Your task to perform on an android device: Go to network settings Image 0: 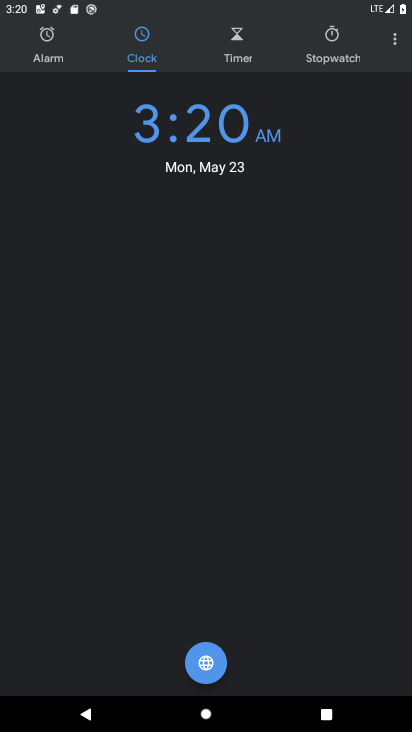
Step 0: press home button
Your task to perform on an android device: Go to network settings Image 1: 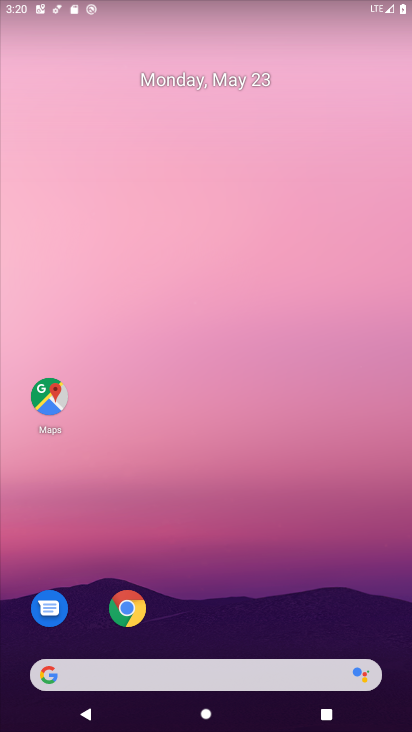
Step 1: drag from (233, 619) to (231, 182)
Your task to perform on an android device: Go to network settings Image 2: 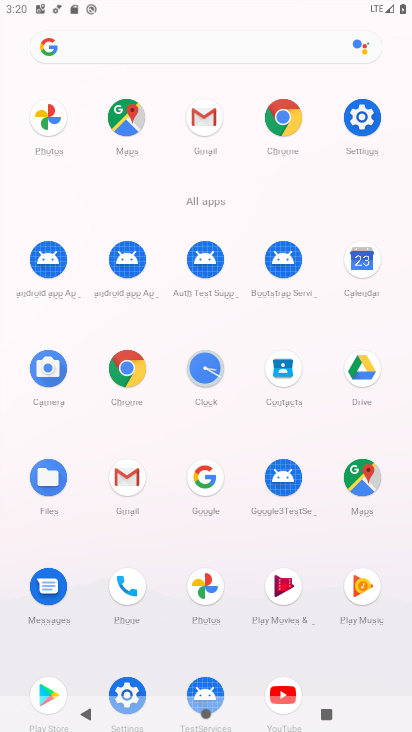
Step 2: click (372, 127)
Your task to perform on an android device: Go to network settings Image 3: 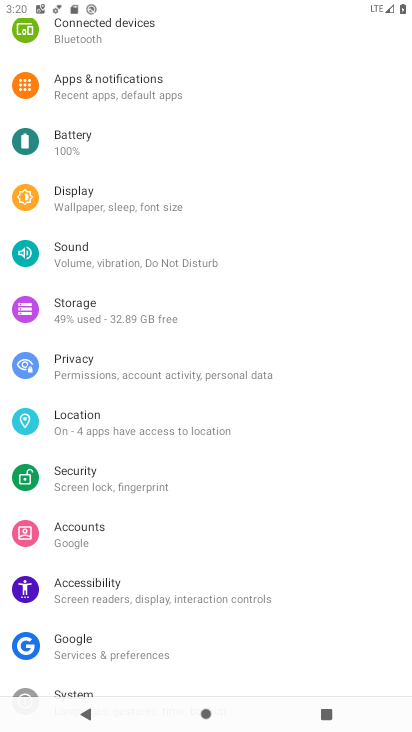
Step 3: drag from (286, 121) to (267, 628)
Your task to perform on an android device: Go to network settings Image 4: 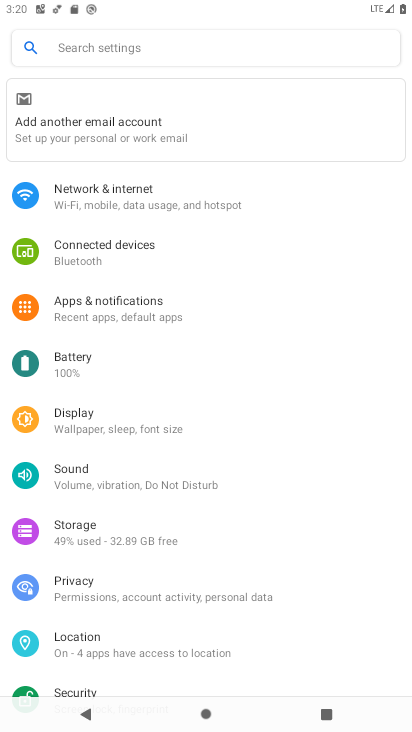
Step 4: click (210, 195)
Your task to perform on an android device: Go to network settings Image 5: 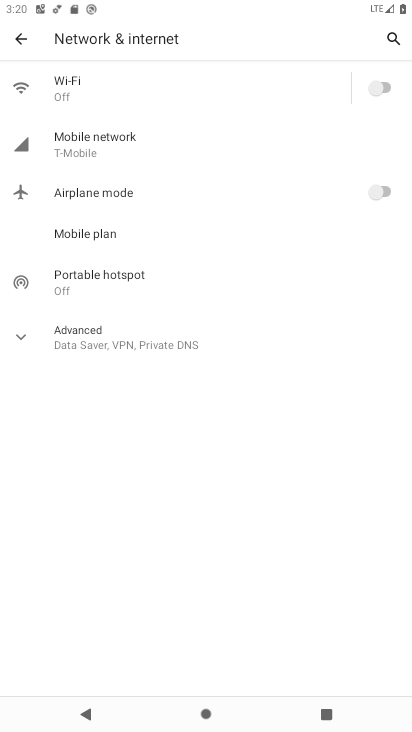
Step 5: task complete